Your task to perform on an android device: turn on bluetooth scan Image 0: 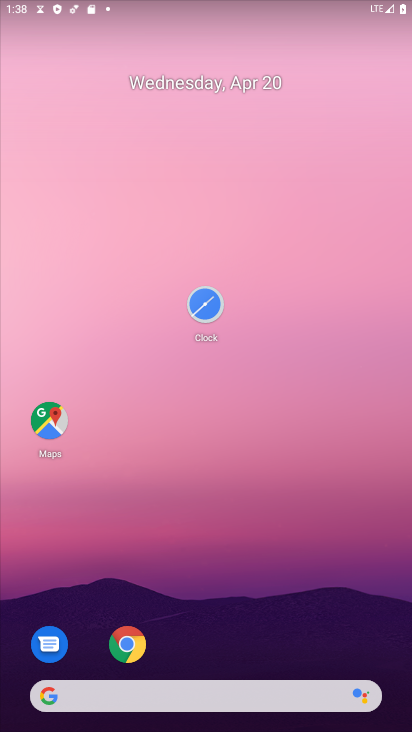
Step 0: drag from (288, 535) to (269, 43)
Your task to perform on an android device: turn on bluetooth scan Image 1: 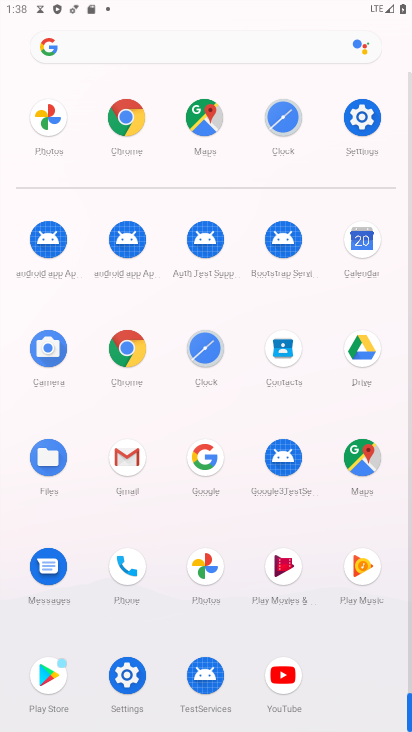
Step 1: click (135, 668)
Your task to perform on an android device: turn on bluetooth scan Image 2: 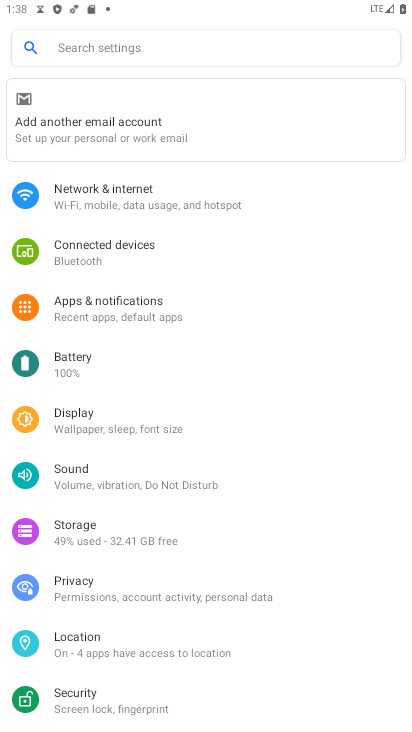
Step 2: click (106, 638)
Your task to perform on an android device: turn on bluetooth scan Image 3: 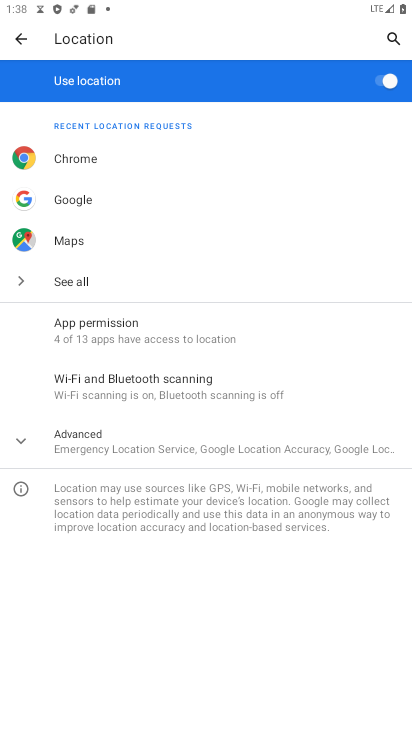
Step 3: click (196, 380)
Your task to perform on an android device: turn on bluetooth scan Image 4: 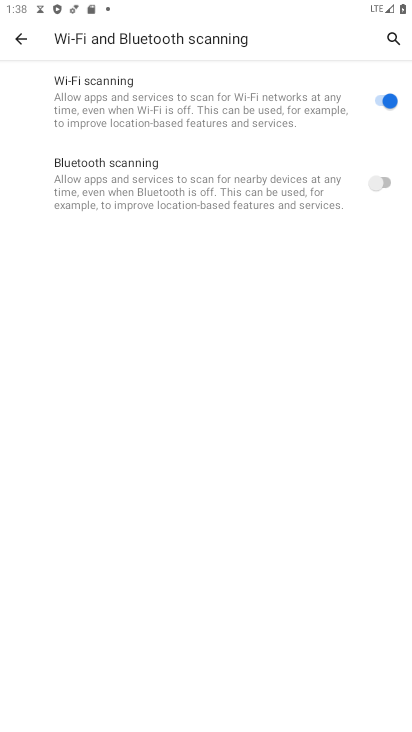
Step 4: click (375, 182)
Your task to perform on an android device: turn on bluetooth scan Image 5: 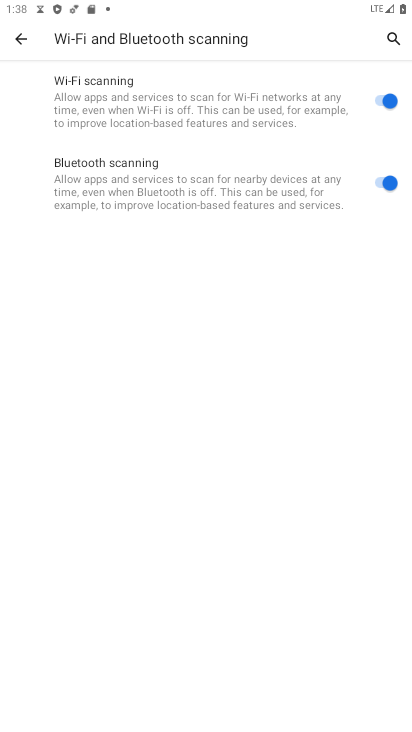
Step 5: task complete